Your task to perform on an android device: Open the phone app and click the voicemail tab. Image 0: 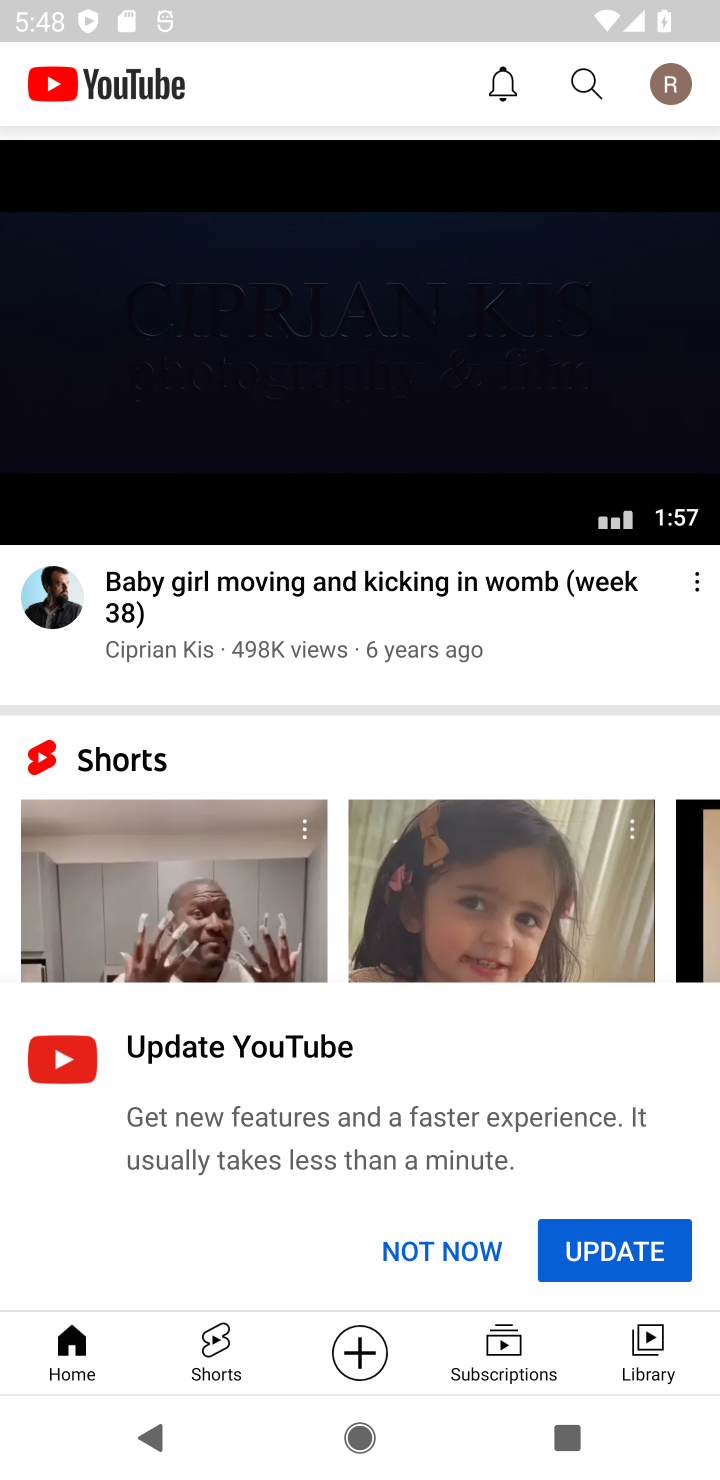
Step 0: press home button
Your task to perform on an android device: Open the phone app and click the voicemail tab. Image 1: 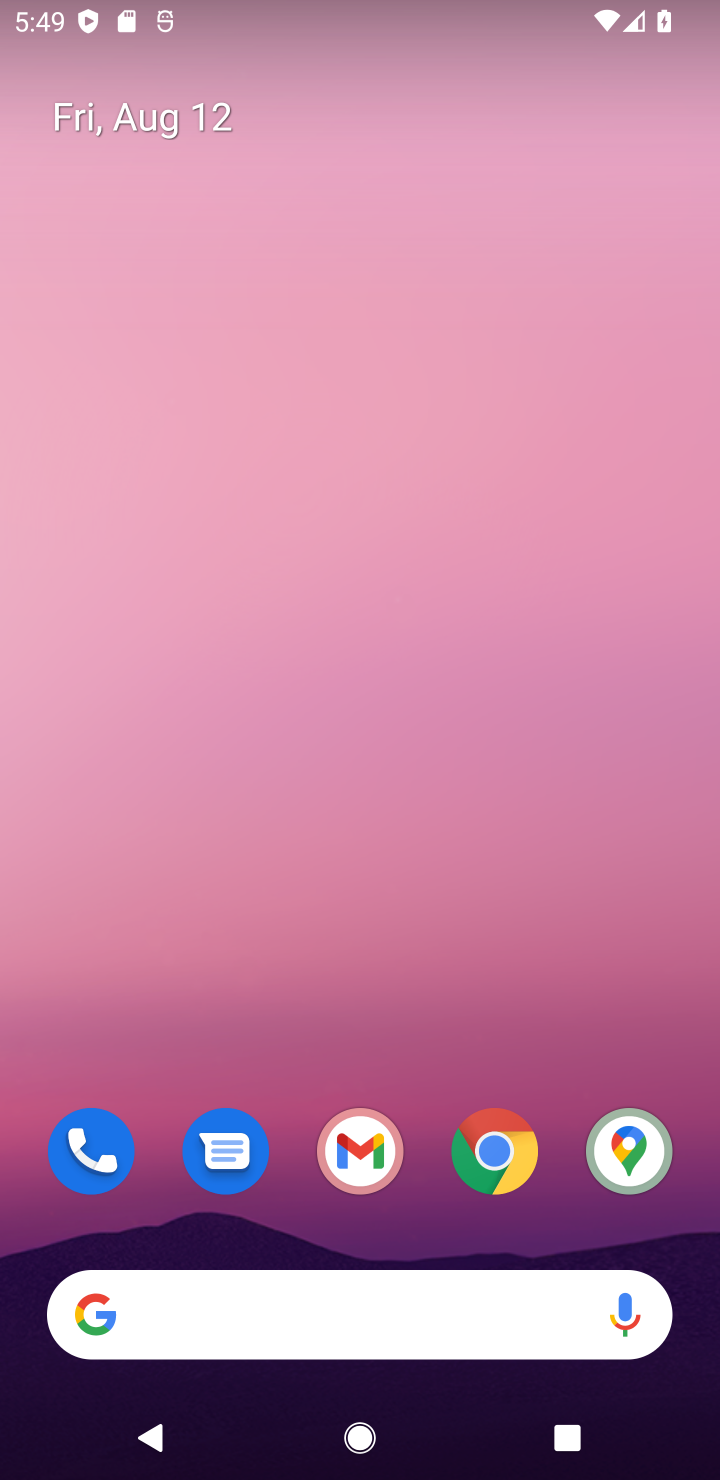
Step 1: drag from (412, 884) to (427, 310)
Your task to perform on an android device: Open the phone app and click the voicemail tab. Image 2: 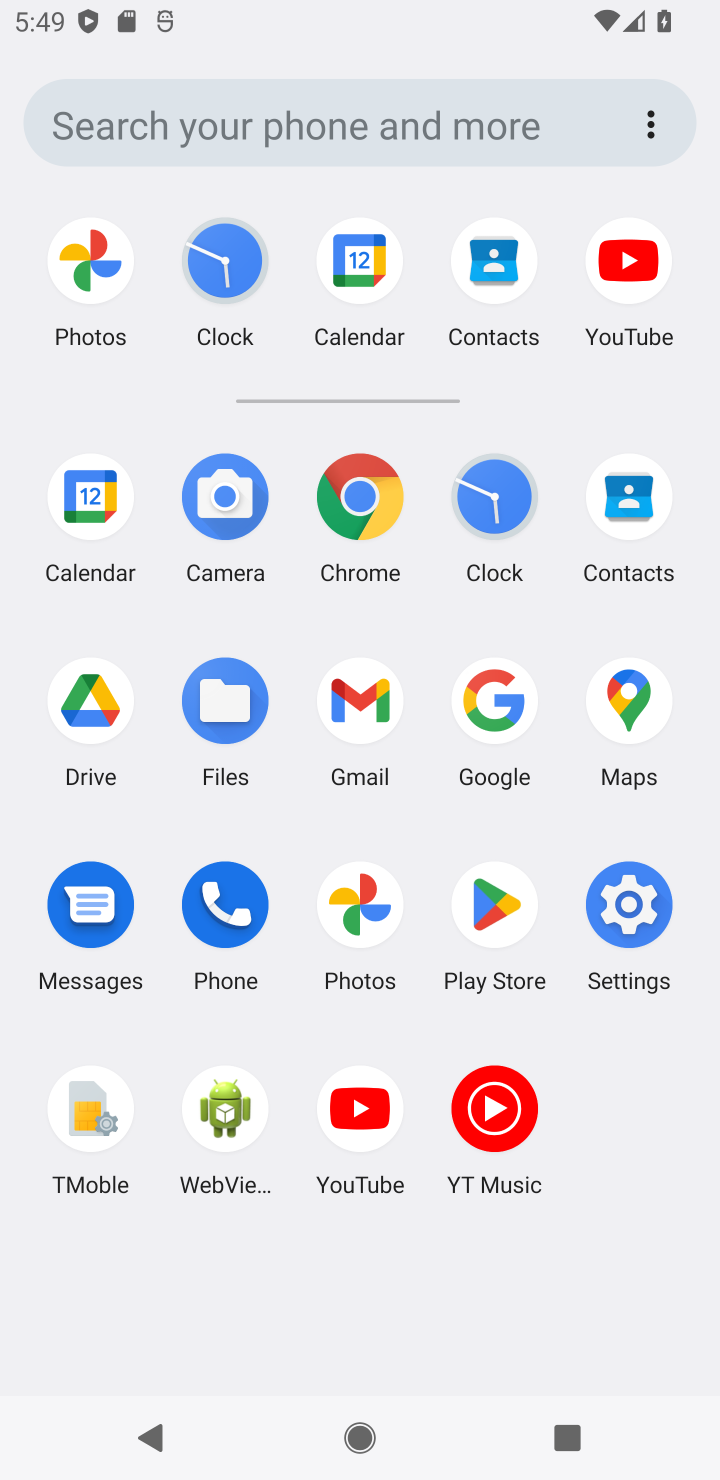
Step 2: click (245, 933)
Your task to perform on an android device: Open the phone app and click the voicemail tab. Image 3: 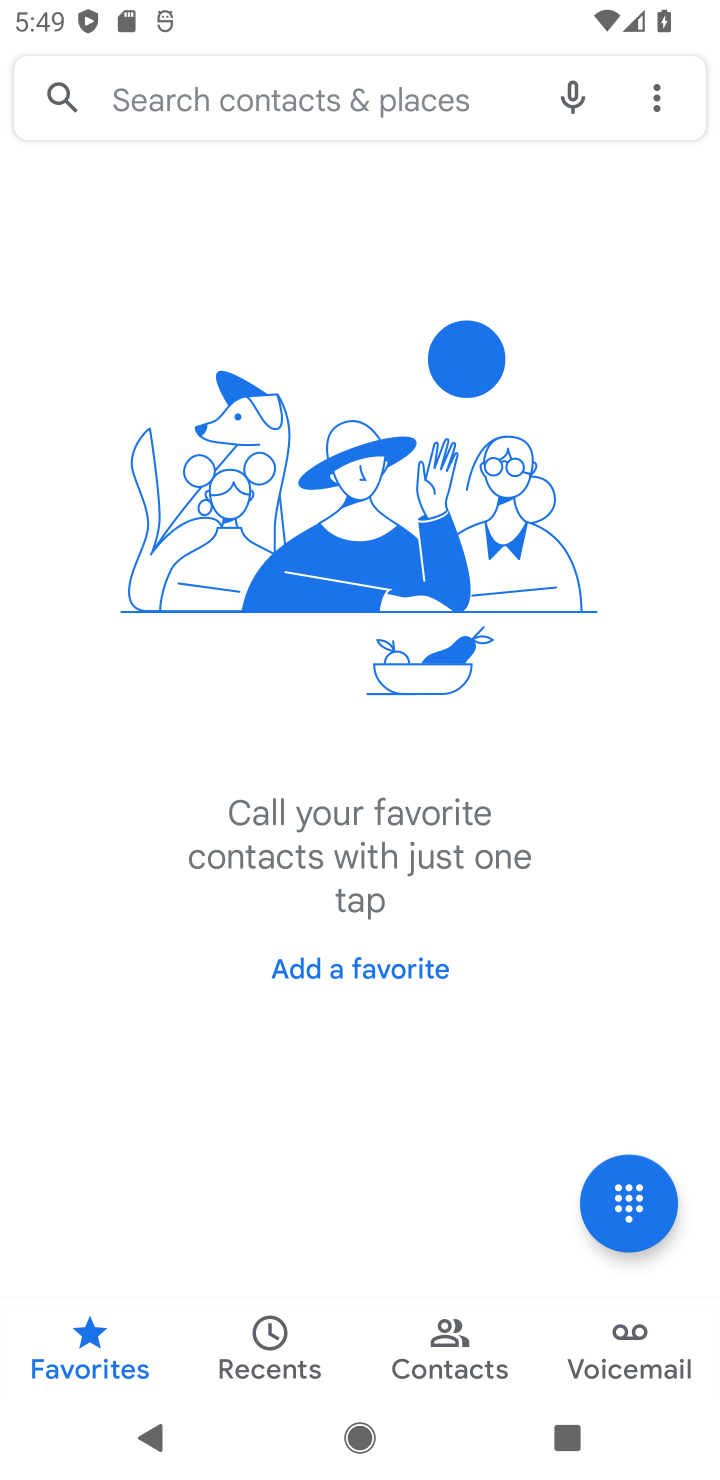
Step 3: click (656, 1362)
Your task to perform on an android device: Open the phone app and click the voicemail tab. Image 4: 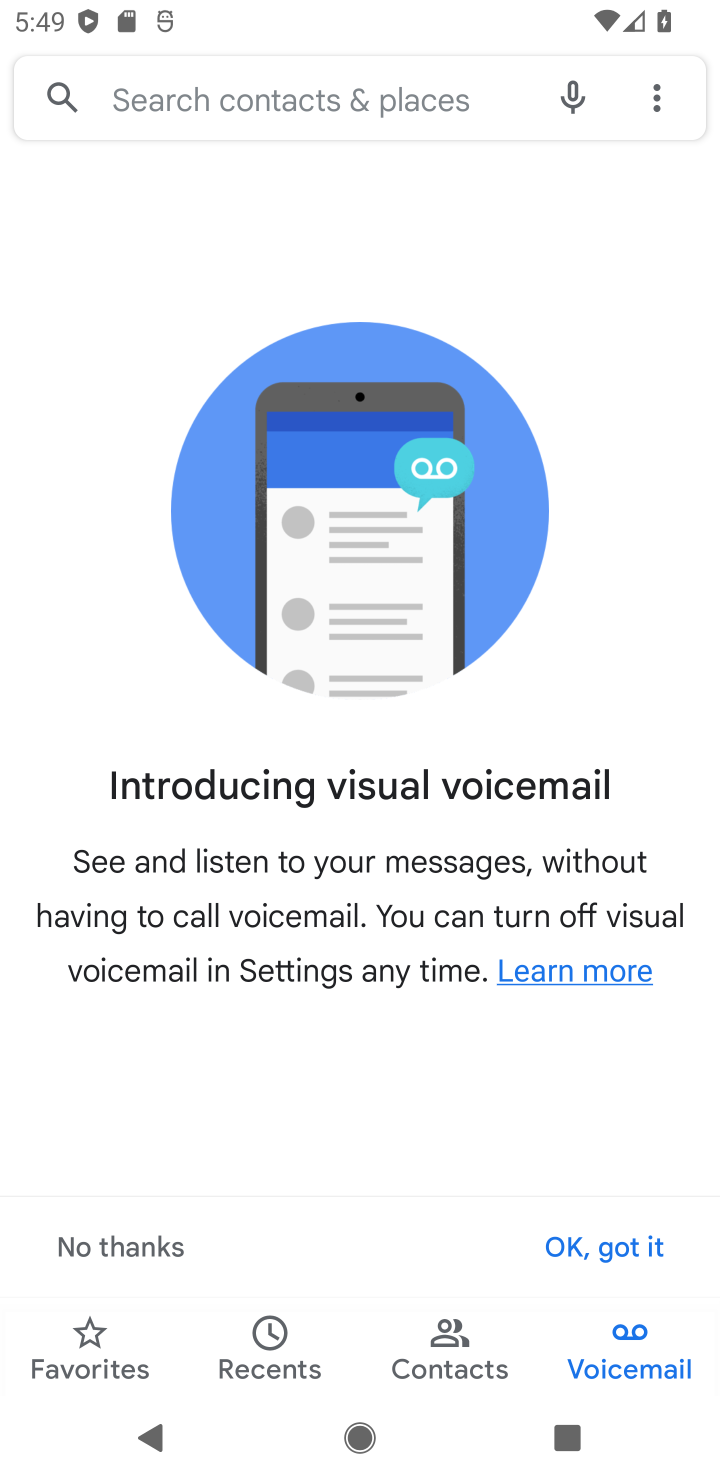
Step 4: task complete